Your task to perform on an android device: turn off notifications in google photos Image 0: 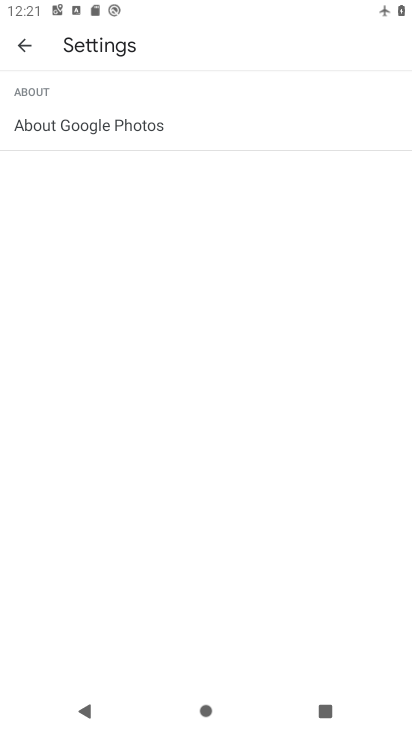
Step 0: press home button
Your task to perform on an android device: turn off notifications in google photos Image 1: 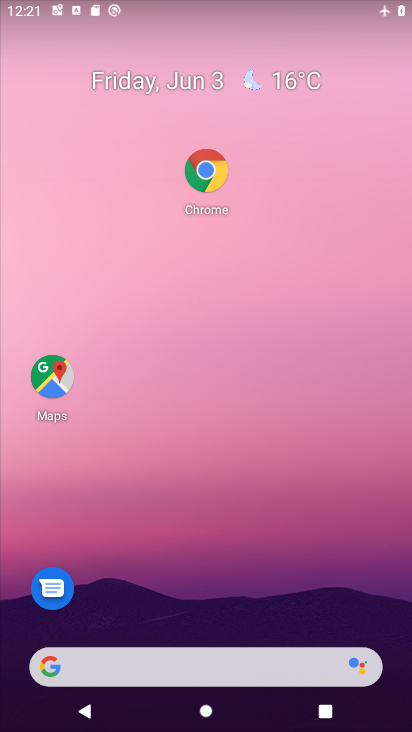
Step 1: drag from (210, 450) to (262, 281)
Your task to perform on an android device: turn off notifications in google photos Image 2: 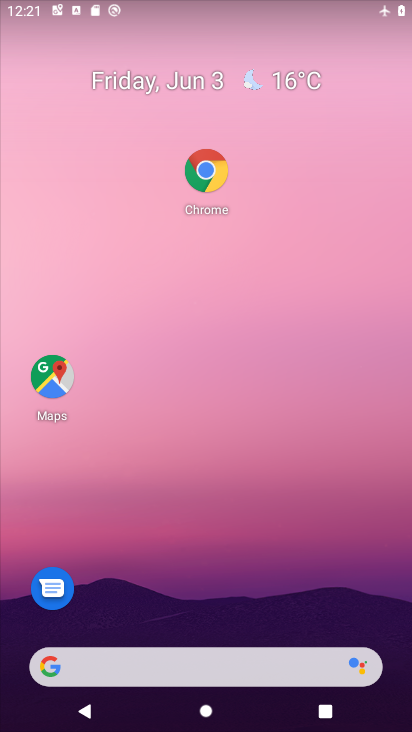
Step 2: drag from (185, 630) to (318, 182)
Your task to perform on an android device: turn off notifications in google photos Image 3: 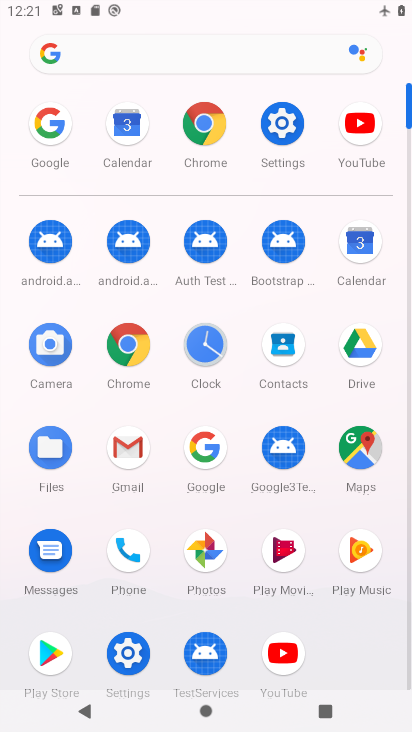
Step 3: click (212, 559)
Your task to perform on an android device: turn off notifications in google photos Image 4: 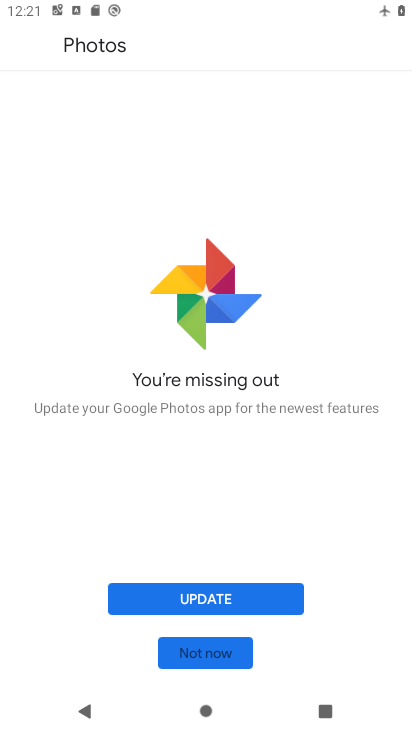
Step 4: click (223, 651)
Your task to perform on an android device: turn off notifications in google photos Image 5: 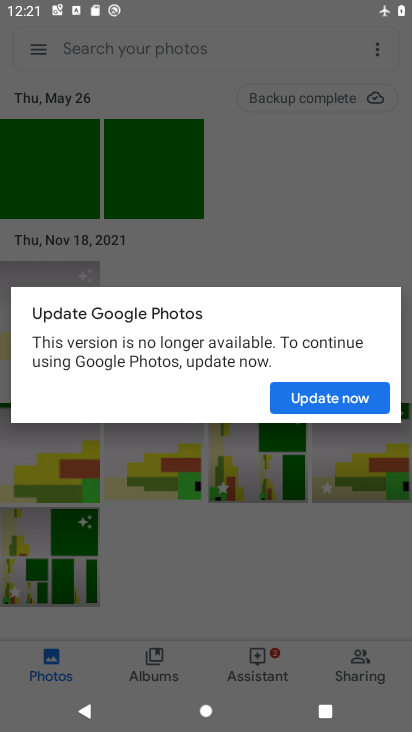
Step 5: task complete